Your task to perform on an android device: Open display settings Image 0: 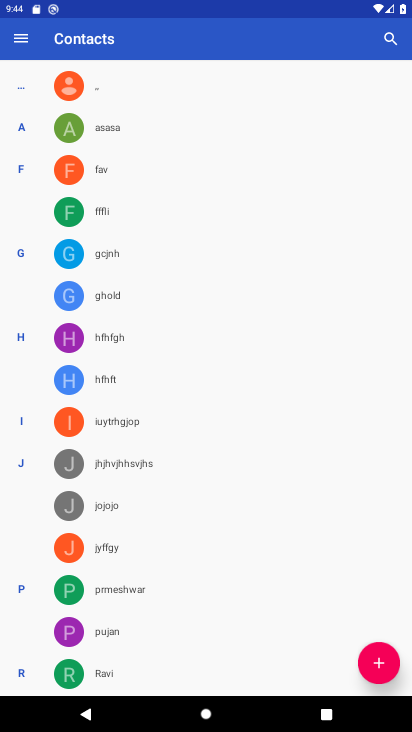
Step 0: press home button
Your task to perform on an android device: Open display settings Image 1: 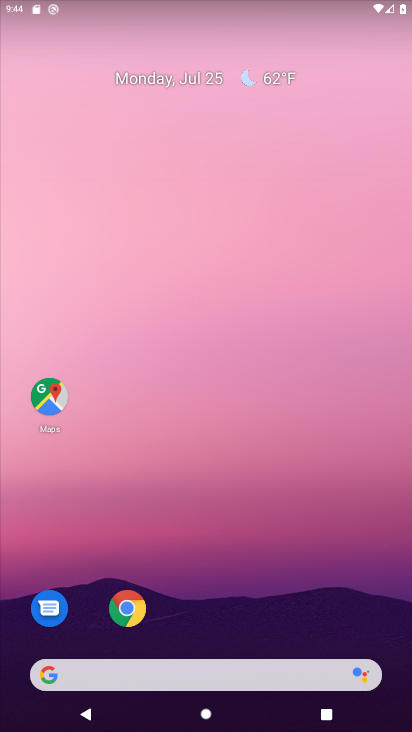
Step 1: drag from (229, 637) to (203, 0)
Your task to perform on an android device: Open display settings Image 2: 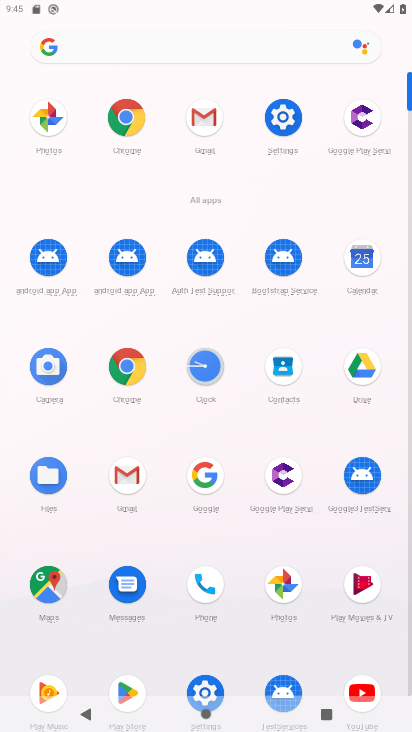
Step 2: click (275, 117)
Your task to perform on an android device: Open display settings Image 3: 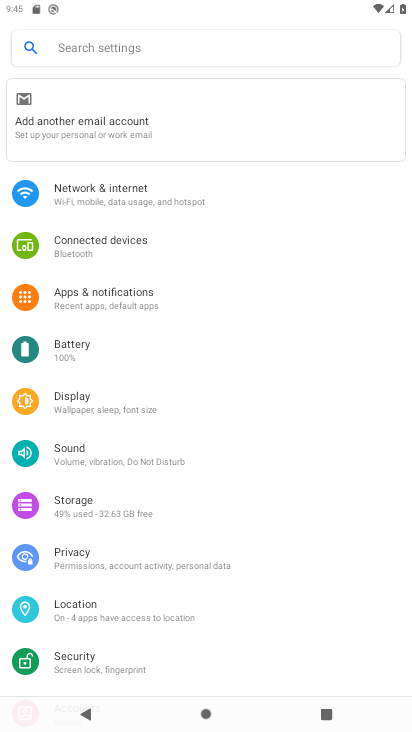
Step 3: click (85, 400)
Your task to perform on an android device: Open display settings Image 4: 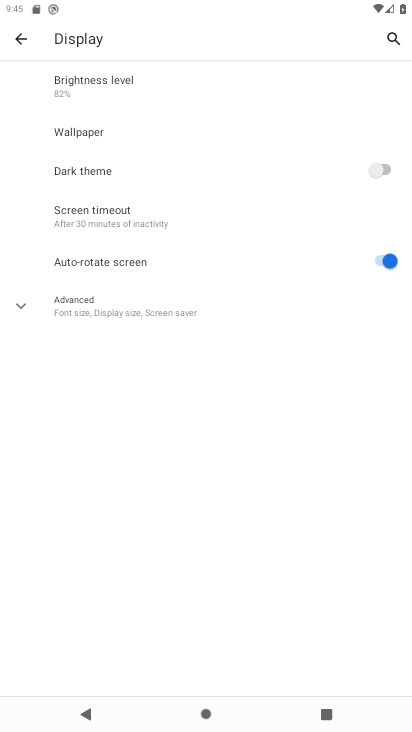
Step 4: click (32, 296)
Your task to perform on an android device: Open display settings Image 5: 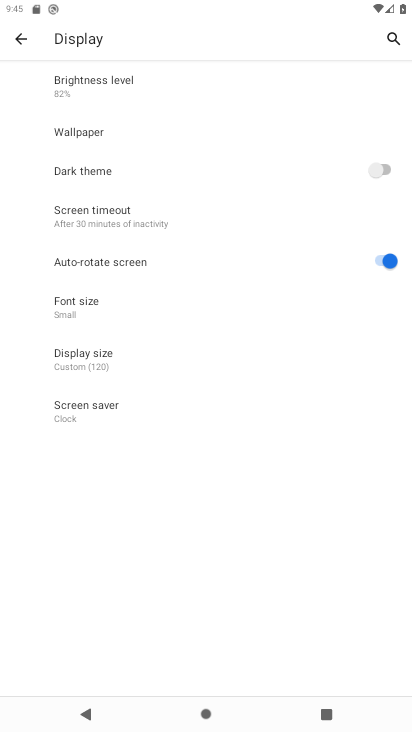
Step 5: task complete